Your task to perform on an android device: What's on my calendar tomorrow? Image 0: 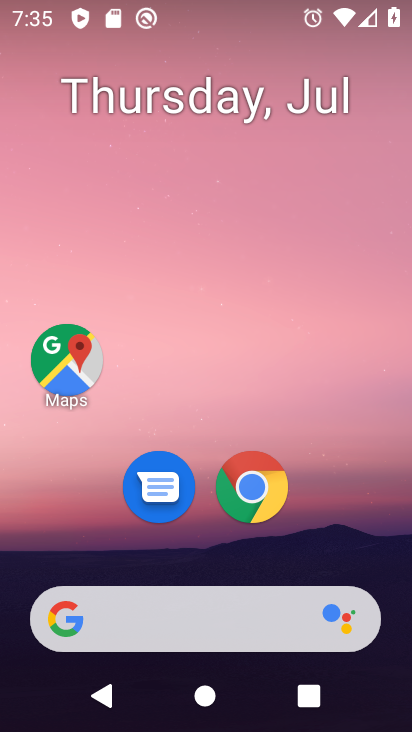
Step 0: drag from (349, 554) to (349, 308)
Your task to perform on an android device: What's on my calendar tomorrow? Image 1: 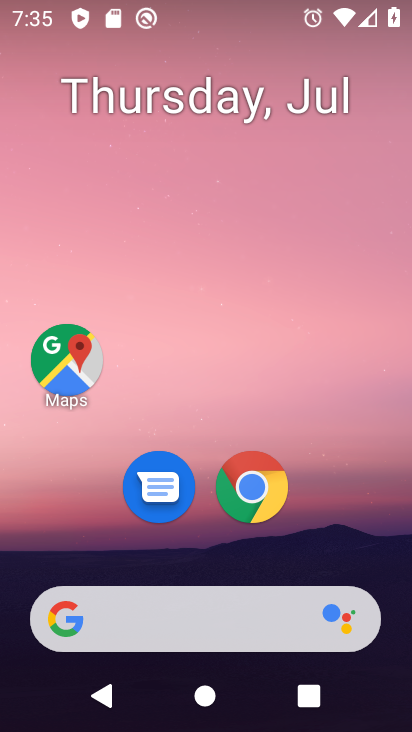
Step 1: drag from (309, 538) to (323, 152)
Your task to perform on an android device: What's on my calendar tomorrow? Image 2: 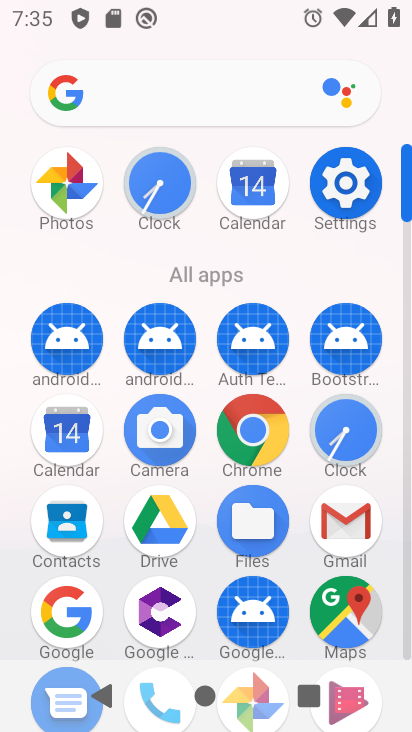
Step 2: click (240, 211)
Your task to perform on an android device: What's on my calendar tomorrow? Image 3: 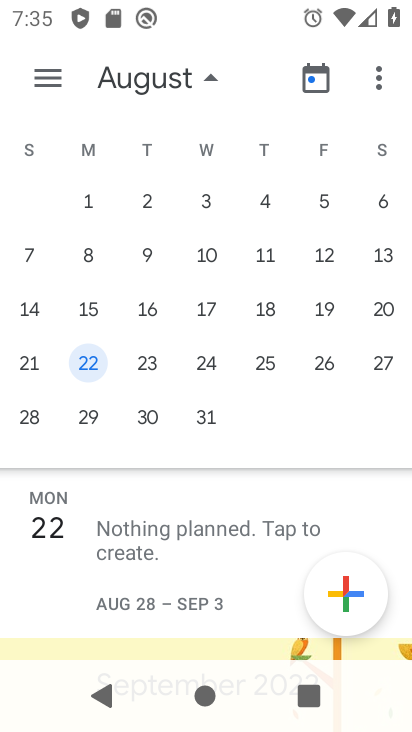
Step 3: drag from (97, 398) to (404, 346)
Your task to perform on an android device: What's on my calendar tomorrow? Image 4: 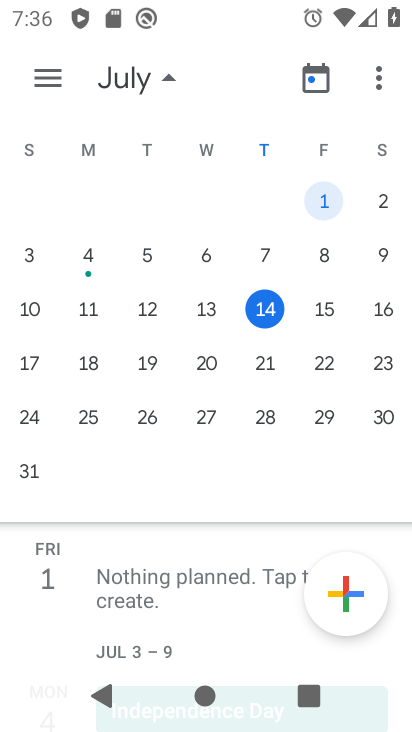
Step 4: click (321, 316)
Your task to perform on an android device: What's on my calendar tomorrow? Image 5: 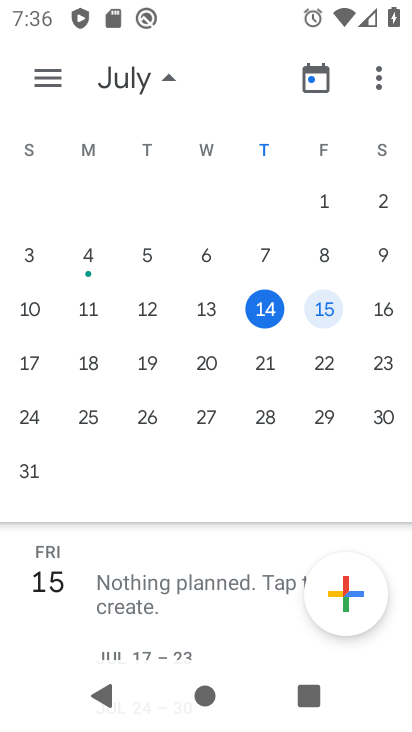
Step 5: task complete